Your task to perform on an android device: Go to privacy settings Image 0: 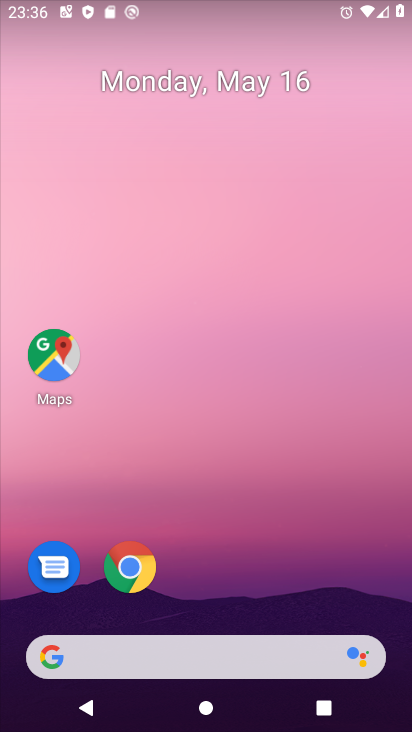
Step 0: drag from (245, 553) to (160, 113)
Your task to perform on an android device: Go to privacy settings Image 1: 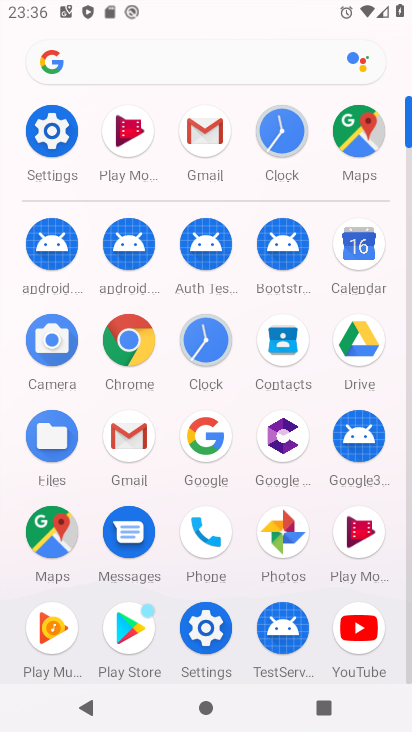
Step 1: click (51, 130)
Your task to perform on an android device: Go to privacy settings Image 2: 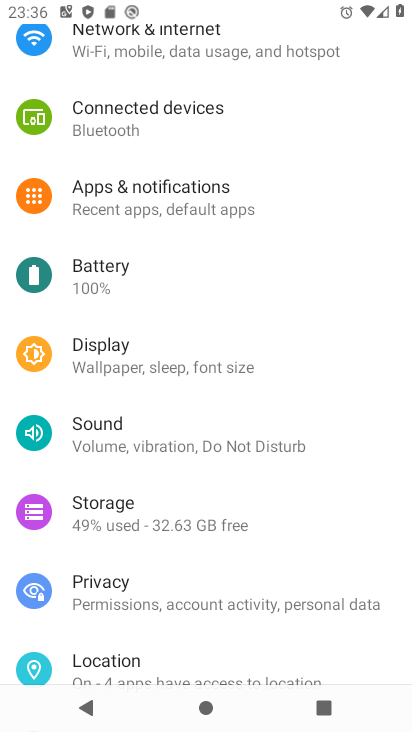
Step 2: click (100, 579)
Your task to perform on an android device: Go to privacy settings Image 3: 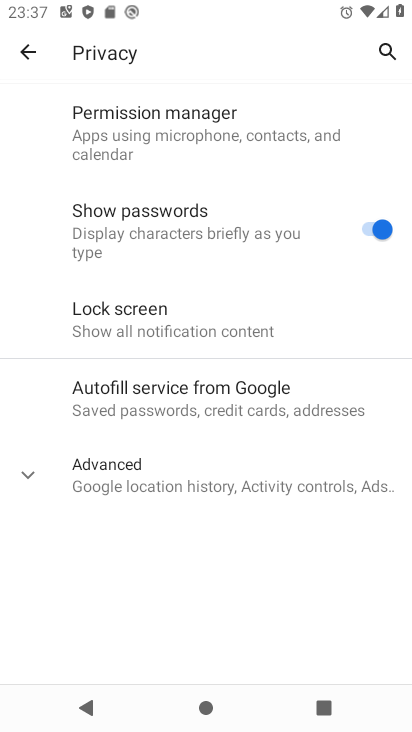
Step 3: task complete